Your task to perform on an android device: set an alarm Image 0: 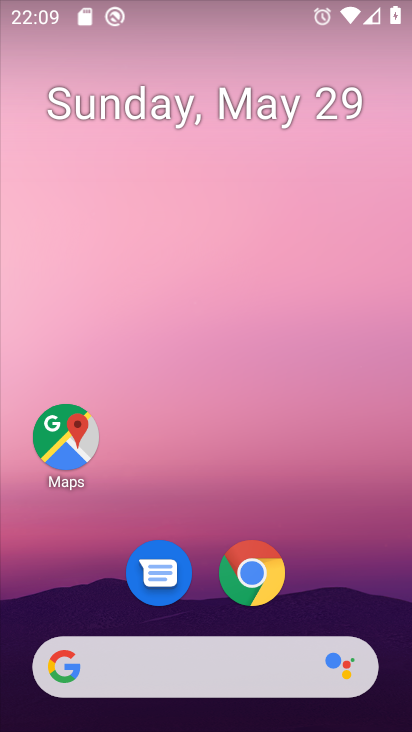
Step 0: drag from (243, 498) to (328, 0)
Your task to perform on an android device: set an alarm Image 1: 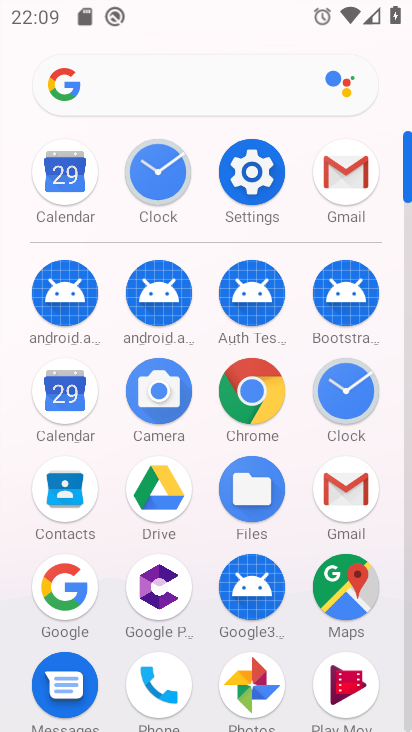
Step 1: click (162, 165)
Your task to perform on an android device: set an alarm Image 2: 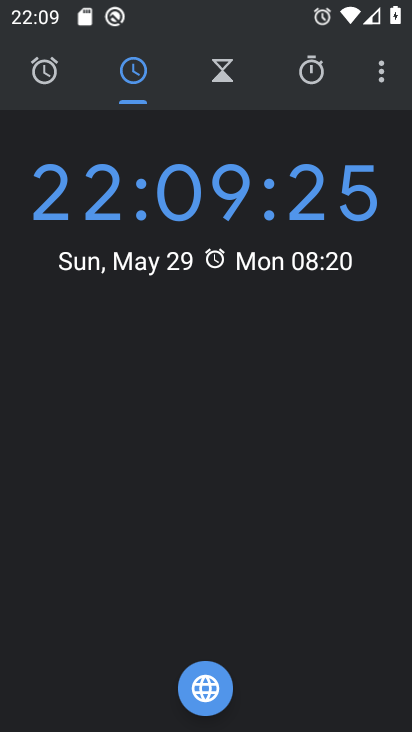
Step 2: click (40, 71)
Your task to perform on an android device: set an alarm Image 3: 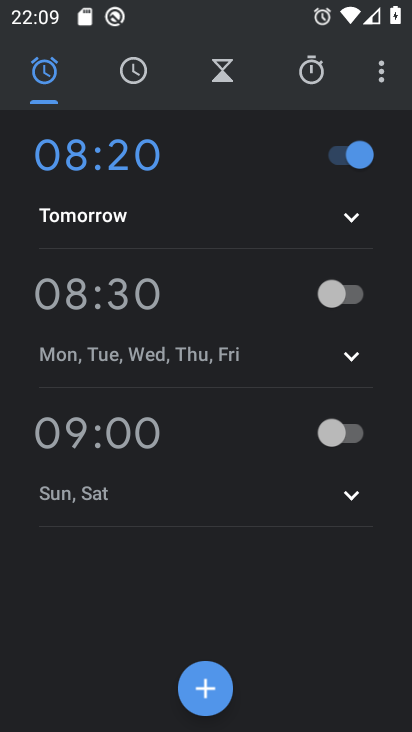
Step 3: click (213, 679)
Your task to perform on an android device: set an alarm Image 4: 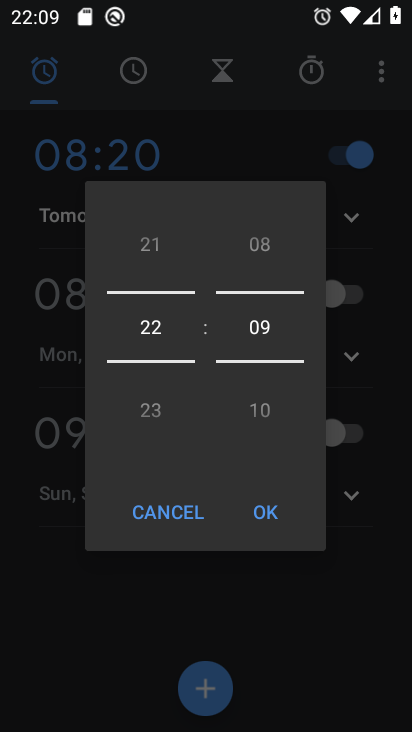
Step 4: drag from (260, 332) to (264, 244)
Your task to perform on an android device: set an alarm Image 5: 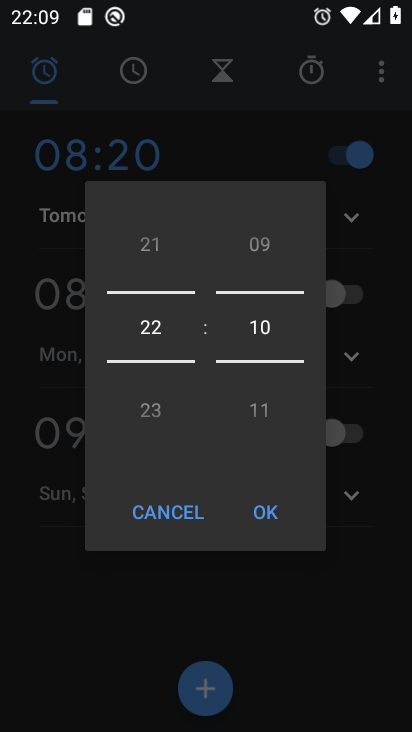
Step 5: click (261, 507)
Your task to perform on an android device: set an alarm Image 6: 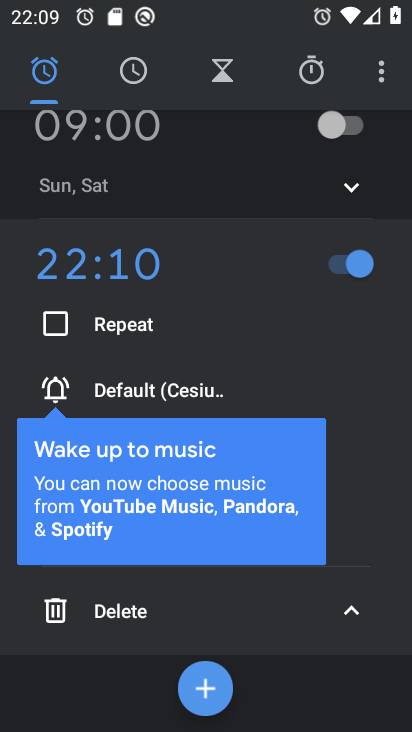
Step 6: task complete